Your task to perform on an android device: turn notification dots off Image 0: 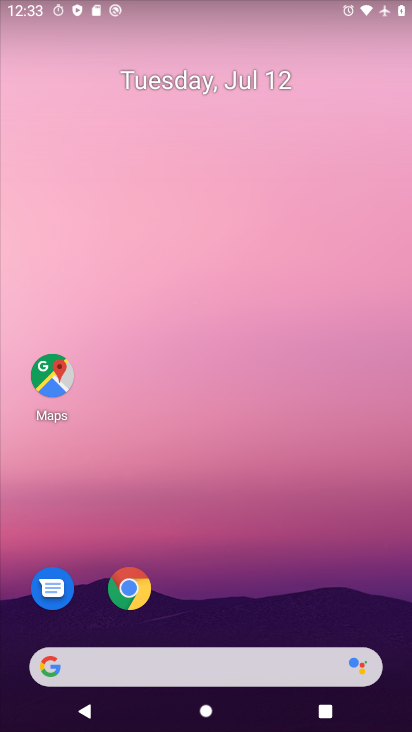
Step 0: press home button
Your task to perform on an android device: turn notification dots off Image 1: 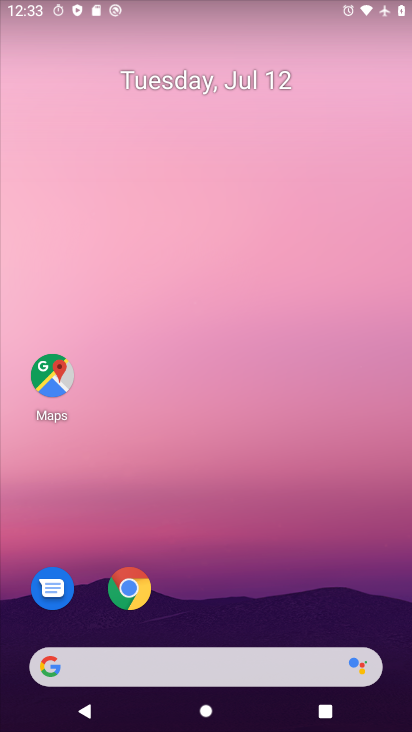
Step 1: drag from (211, 644) to (341, 65)
Your task to perform on an android device: turn notification dots off Image 2: 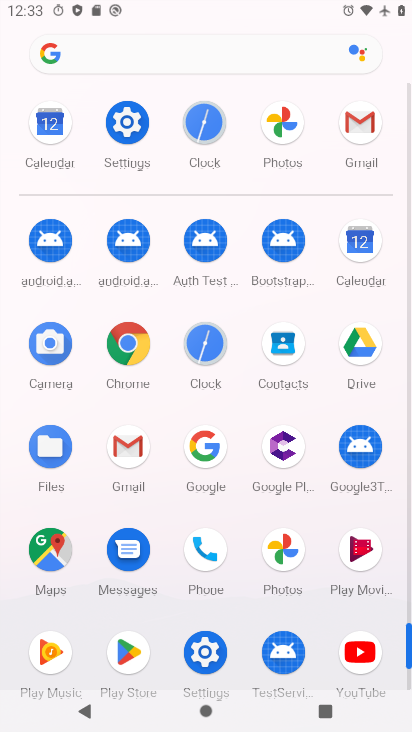
Step 2: click (132, 132)
Your task to perform on an android device: turn notification dots off Image 3: 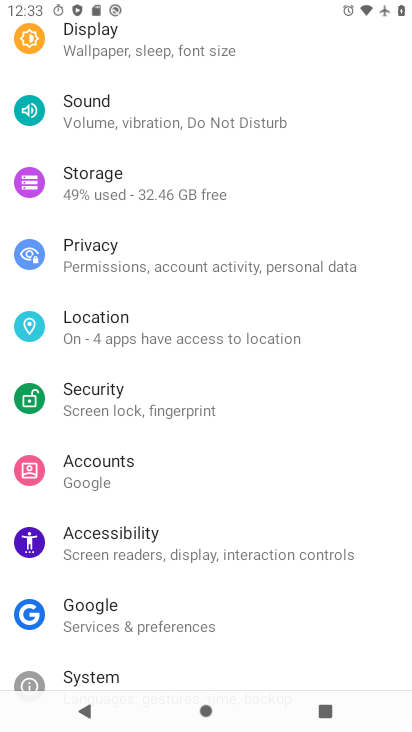
Step 3: drag from (305, 76) to (189, 571)
Your task to perform on an android device: turn notification dots off Image 4: 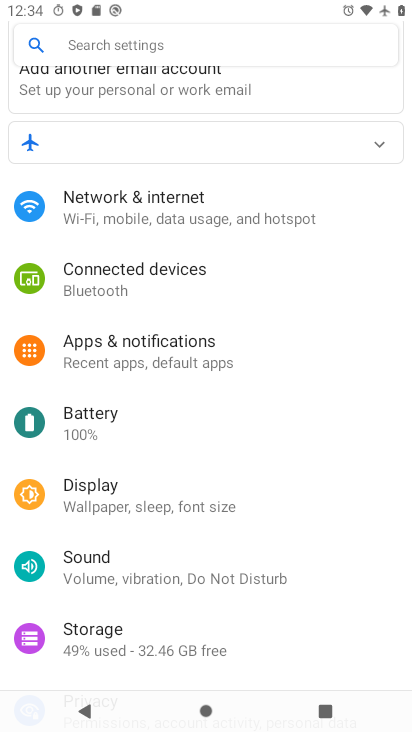
Step 4: click (164, 351)
Your task to perform on an android device: turn notification dots off Image 5: 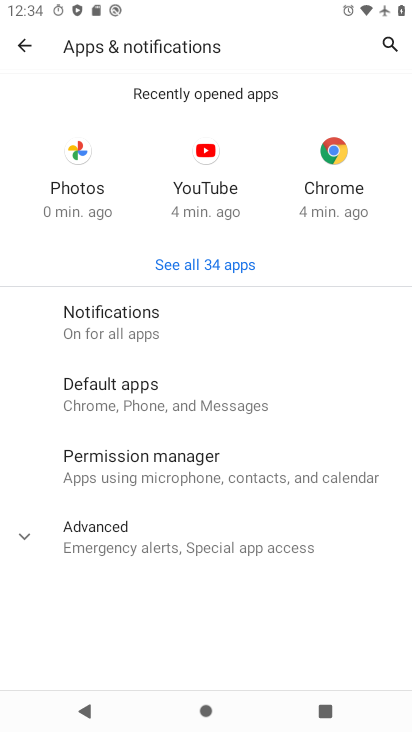
Step 5: click (127, 544)
Your task to perform on an android device: turn notification dots off Image 6: 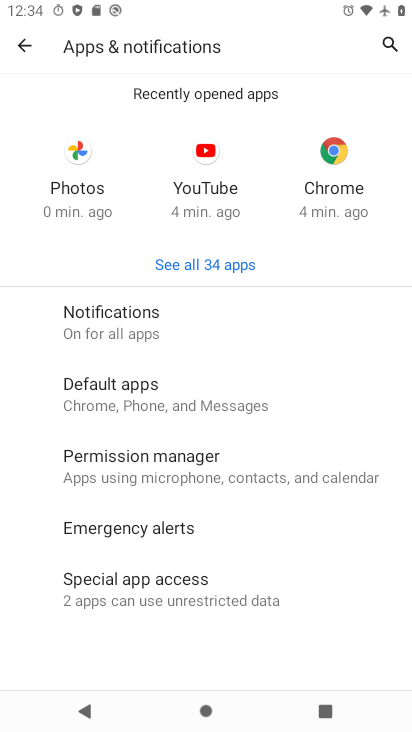
Step 6: click (154, 311)
Your task to perform on an android device: turn notification dots off Image 7: 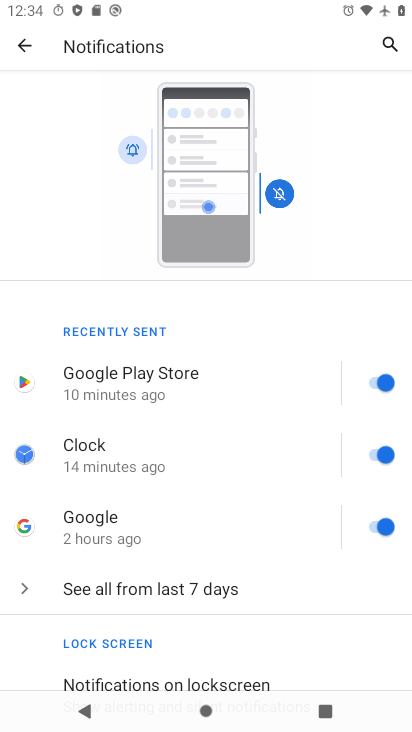
Step 7: drag from (248, 577) to (288, 205)
Your task to perform on an android device: turn notification dots off Image 8: 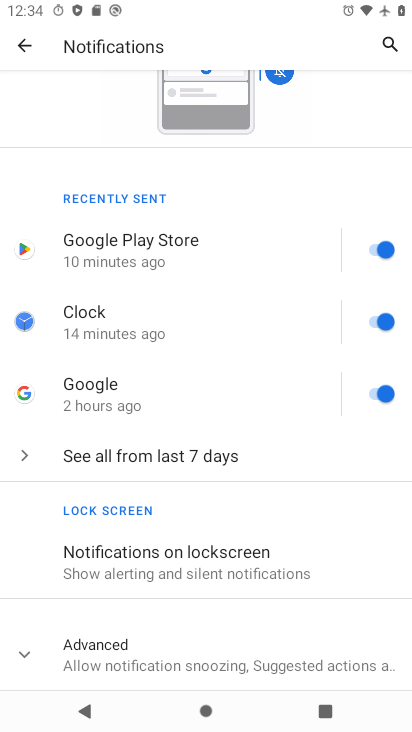
Step 8: click (121, 650)
Your task to perform on an android device: turn notification dots off Image 9: 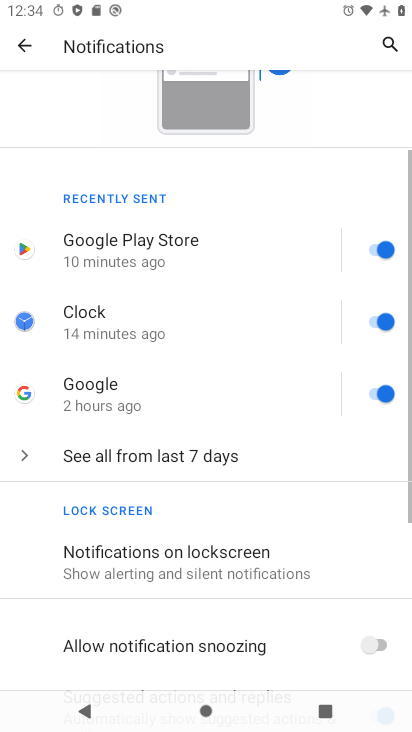
Step 9: task complete